Your task to perform on an android device: Add usb-a to the cart on walmart.com Image 0: 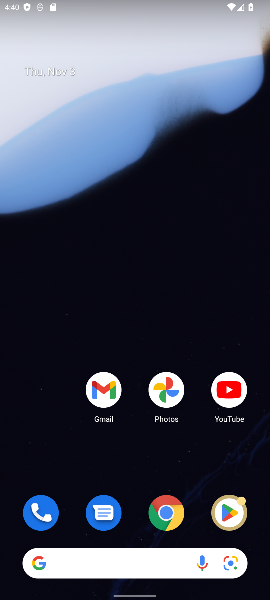
Step 0: click (164, 504)
Your task to perform on an android device: Add usb-a to the cart on walmart.com Image 1: 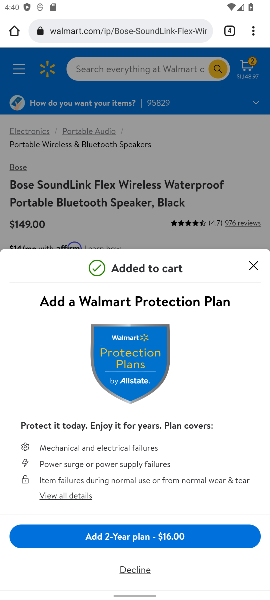
Step 1: click (255, 263)
Your task to perform on an android device: Add usb-a to the cart on walmart.com Image 2: 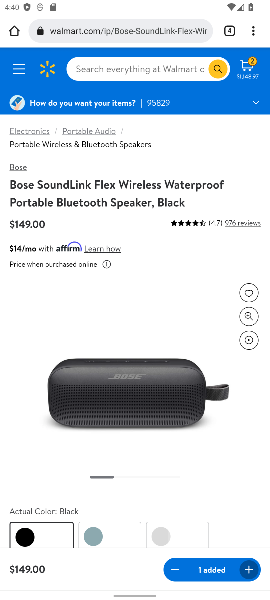
Step 2: click (117, 61)
Your task to perform on an android device: Add usb-a to the cart on walmart.com Image 3: 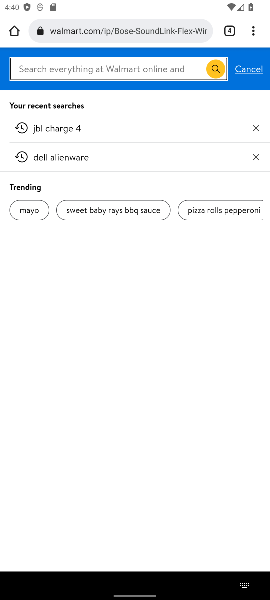
Step 3: type "usb-a"
Your task to perform on an android device: Add usb-a to the cart on walmart.com Image 4: 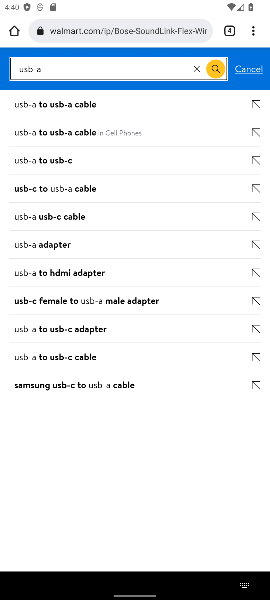
Step 4: click (83, 133)
Your task to perform on an android device: Add usb-a to the cart on walmart.com Image 5: 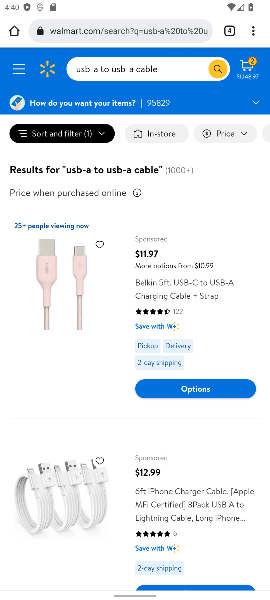
Step 5: click (192, 286)
Your task to perform on an android device: Add usb-a to the cart on walmart.com Image 6: 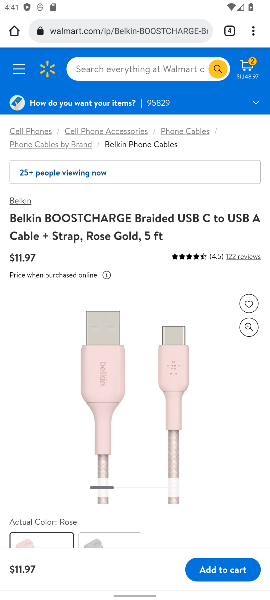
Step 6: click (223, 571)
Your task to perform on an android device: Add usb-a to the cart on walmart.com Image 7: 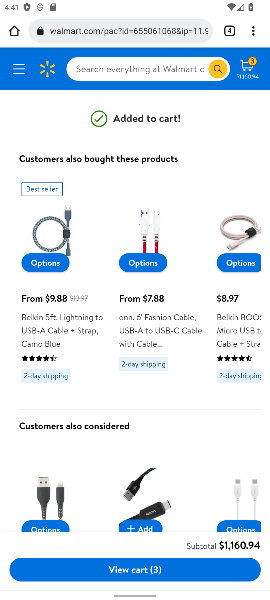
Step 7: task complete